Your task to perform on an android device: turn off javascript in the chrome app Image 0: 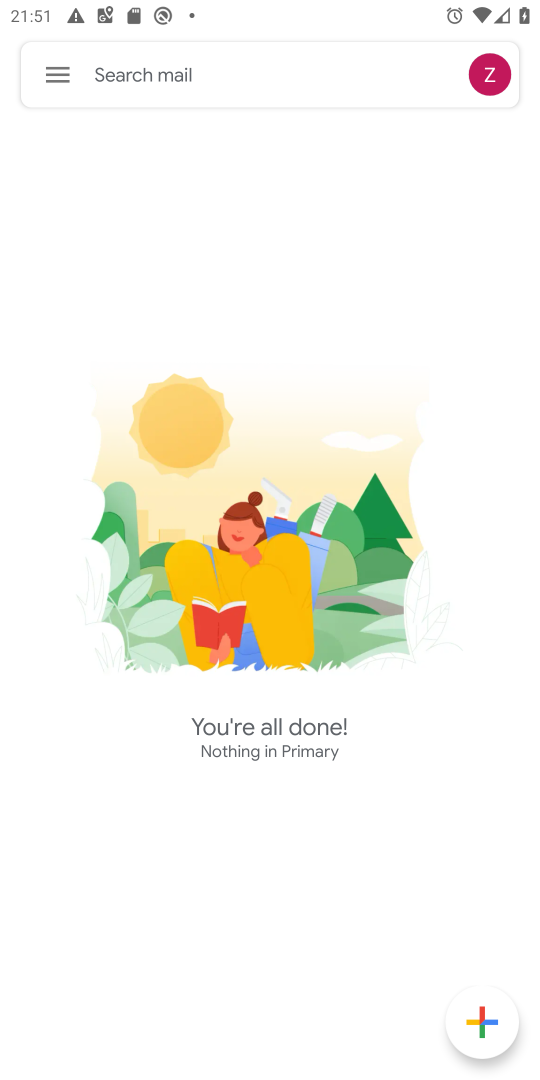
Step 0: press home button
Your task to perform on an android device: turn off javascript in the chrome app Image 1: 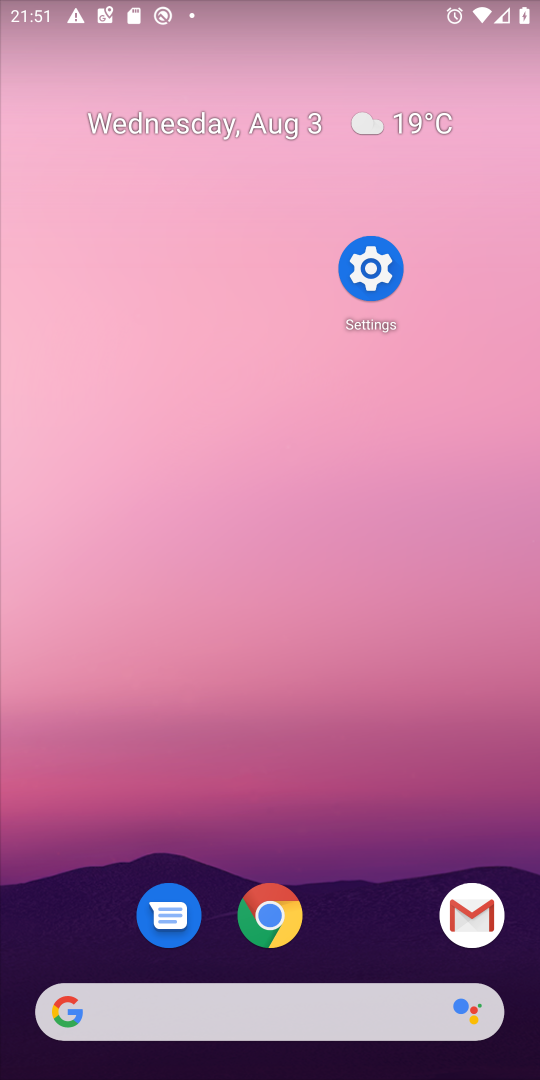
Step 1: drag from (305, 981) to (271, 233)
Your task to perform on an android device: turn off javascript in the chrome app Image 2: 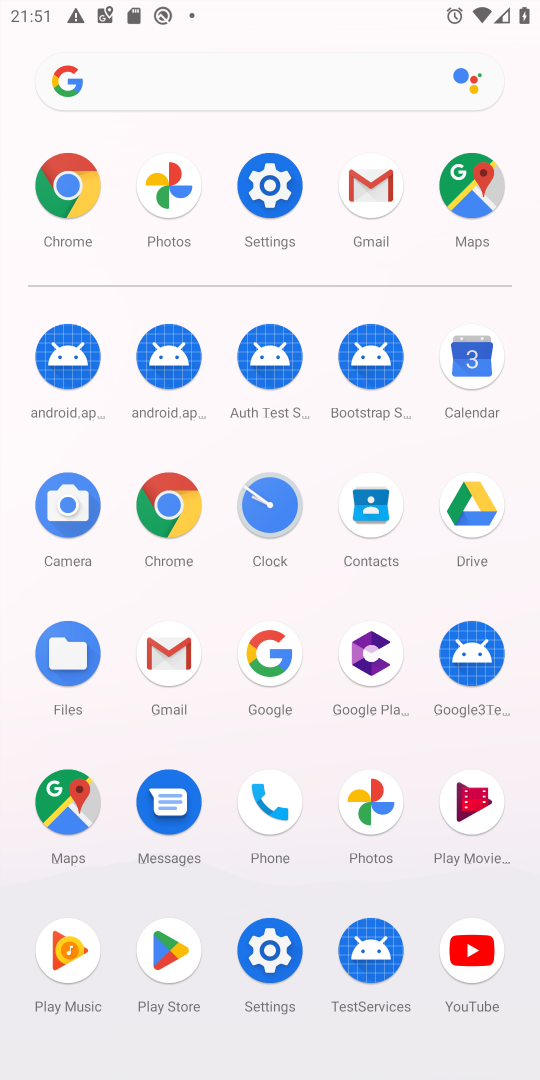
Step 2: click (70, 221)
Your task to perform on an android device: turn off javascript in the chrome app Image 3: 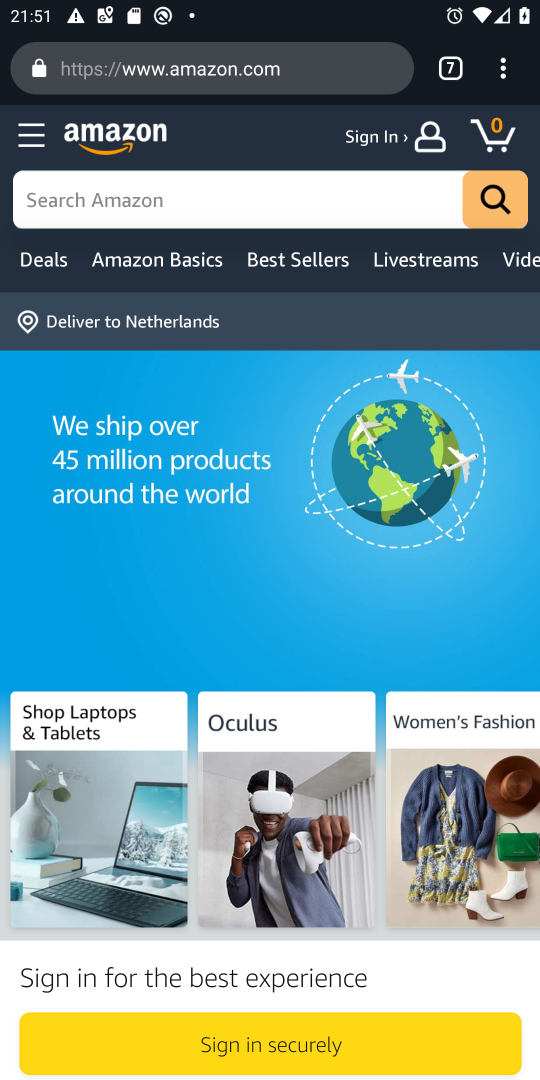
Step 3: click (515, 72)
Your task to perform on an android device: turn off javascript in the chrome app Image 4: 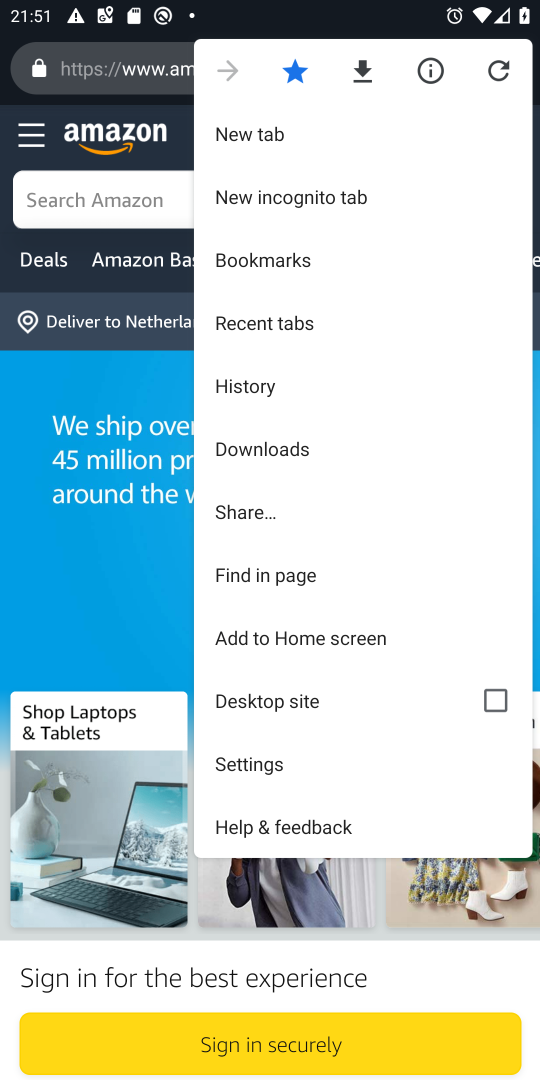
Step 4: click (253, 772)
Your task to perform on an android device: turn off javascript in the chrome app Image 5: 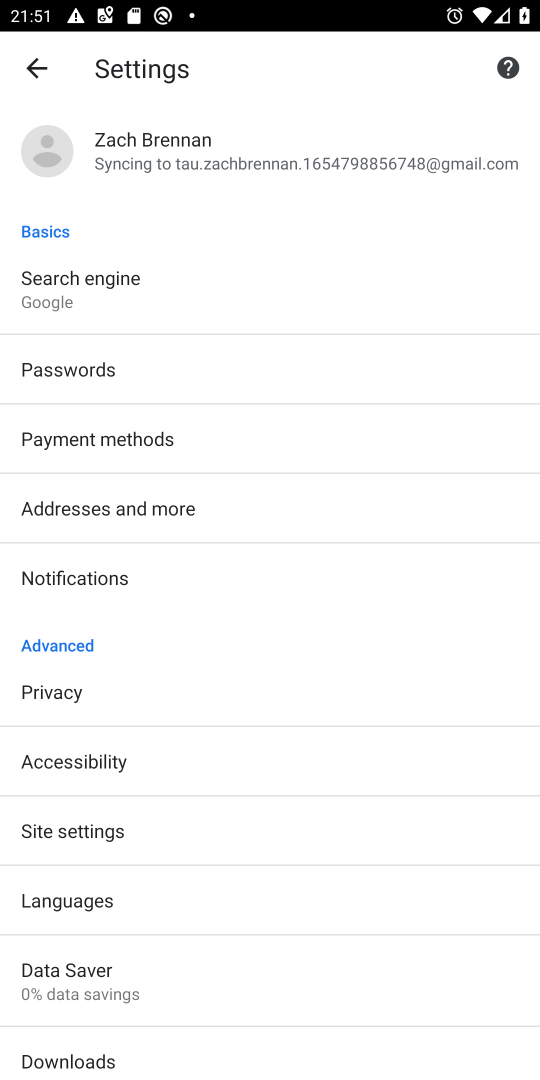
Step 5: click (150, 826)
Your task to perform on an android device: turn off javascript in the chrome app Image 6: 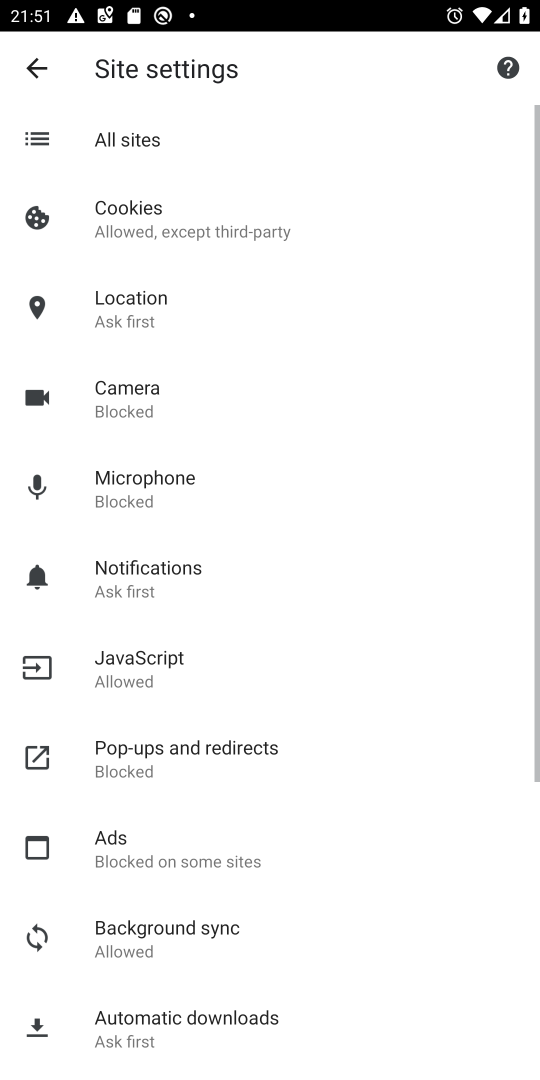
Step 6: click (191, 682)
Your task to perform on an android device: turn off javascript in the chrome app Image 7: 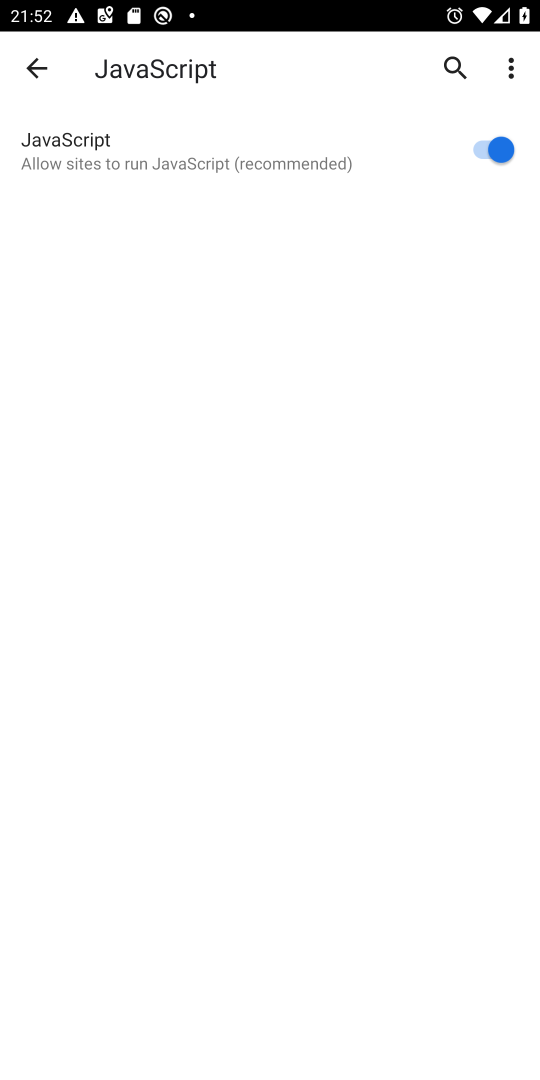
Step 7: task complete